Your task to perform on an android device: Open battery settings Image 0: 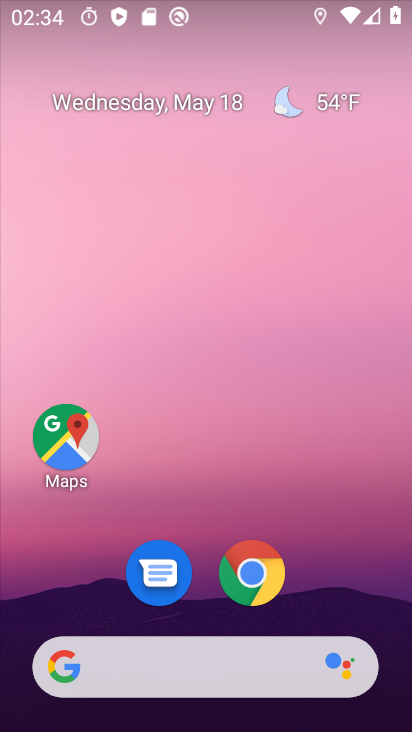
Step 0: drag from (203, 621) to (222, 279)
Your task to perform on an android device: Open battery settings Image 1: 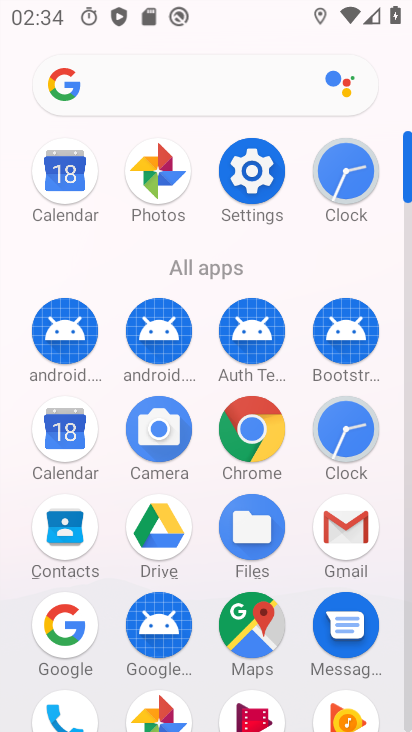
Step 1: click (246, 191)
Your task to perform on an android device: Open battery settings Image 2: 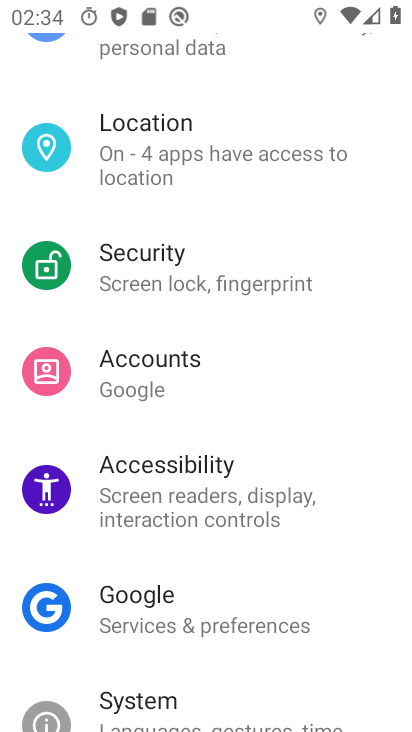
Step 2: drag from (192, 193) to (192, 464)
Your task to perform on an android device: Open battery settings Image 3: 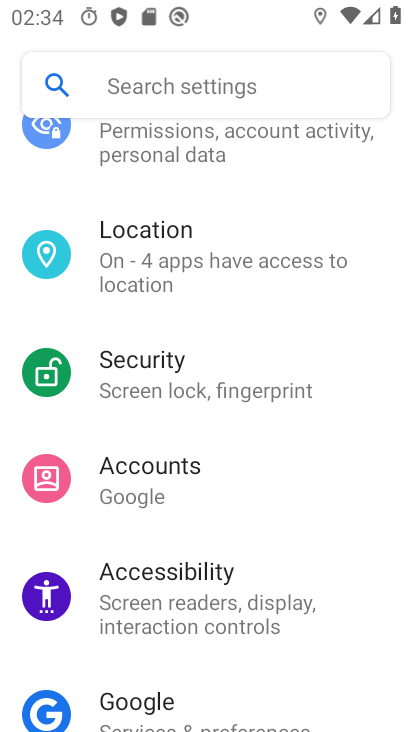
Step 3: drag from (164, 229) to (174, 535)
Your task to perform on an android device: Open battery settings Image 4: 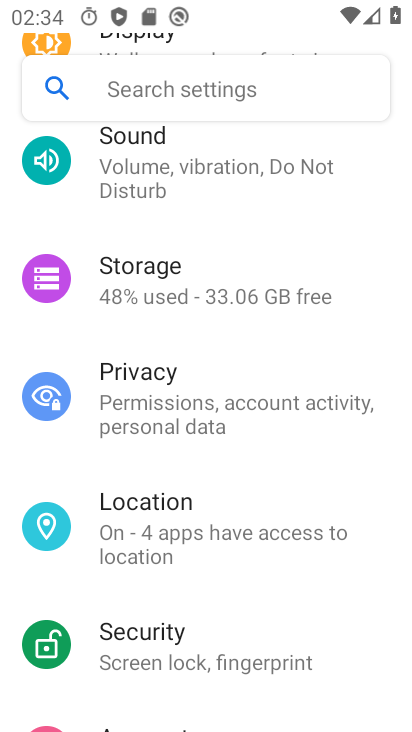
Step 4: drag from (212, 295) to (217, 505)
Your task to perform on an android device: Open battery settings Image 5: 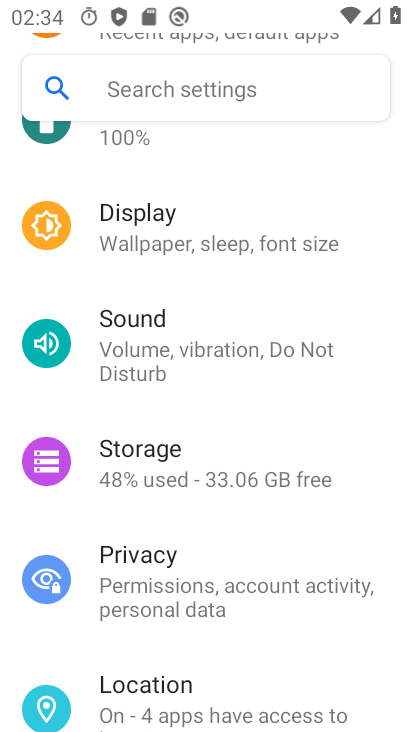
Step 5: drag from (204, 309) to (226, 509)
Your task to perform on an android device: Open battery settings Image 6: 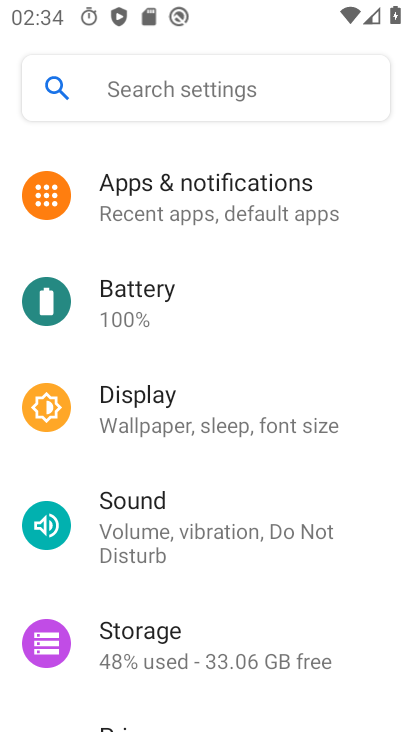
Step 6: click (215, 318)
Your task to perform on an android device: Open battery settings Image 7: 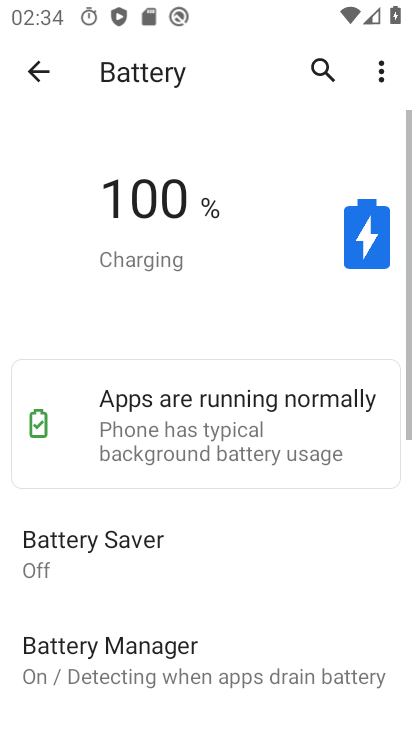
Step 7: task complete